Your task to perform on an android device: Open the phone app and click the voicemail tab. Image 0: 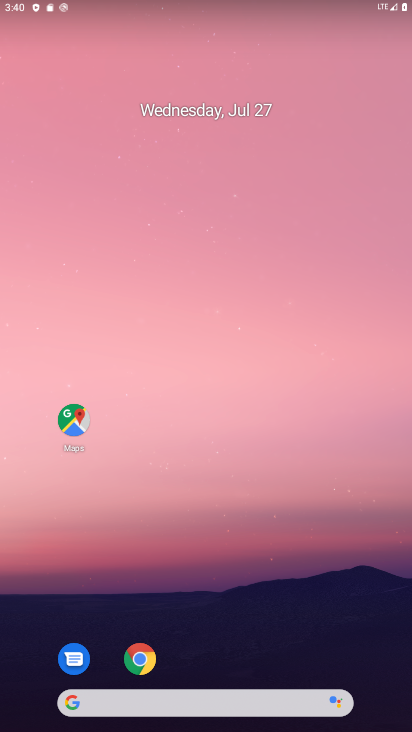
Step 0: drag from (242, 668) to (247, 89)
Your task to perform on an android device: Open the phone app and click the voicemail tab. Image 1: 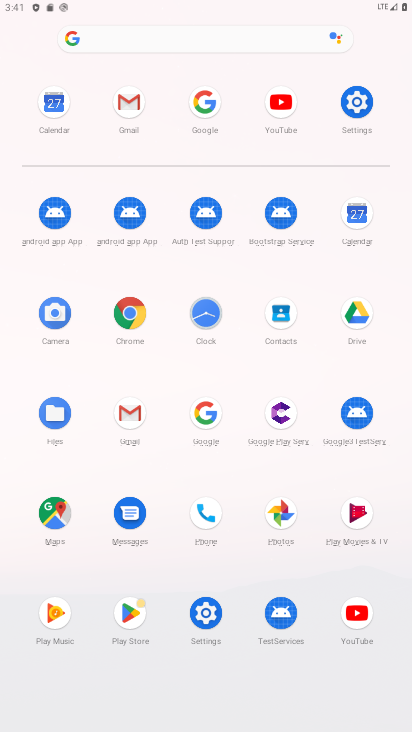
Step 1: click (200, 521)
Your task to perform on an android device: Open the phone app and click the voicemail tab. Image 2: 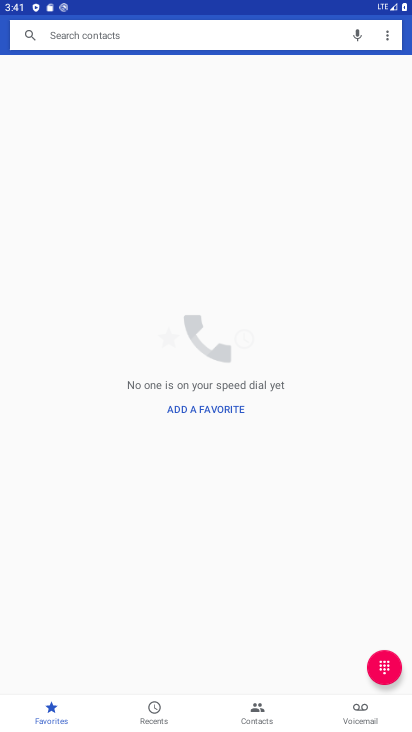
Step 2: click (355, 716)
Your task to perform on an android device: Open the phone app and click the voicemail tab. Image 3: 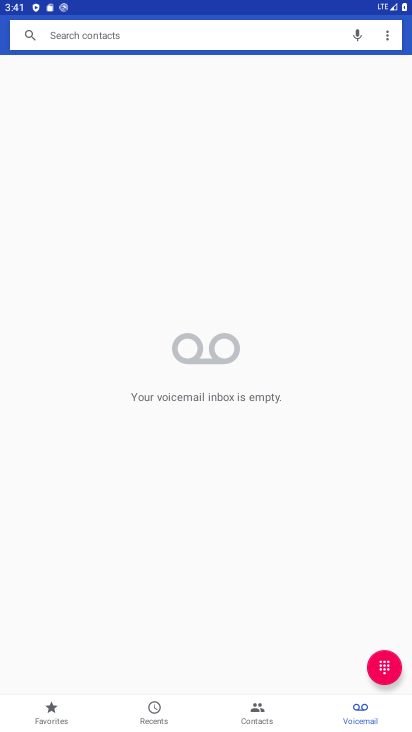
Step 3: task complete